Your task to perform on an android device: Open location settings Image 0: 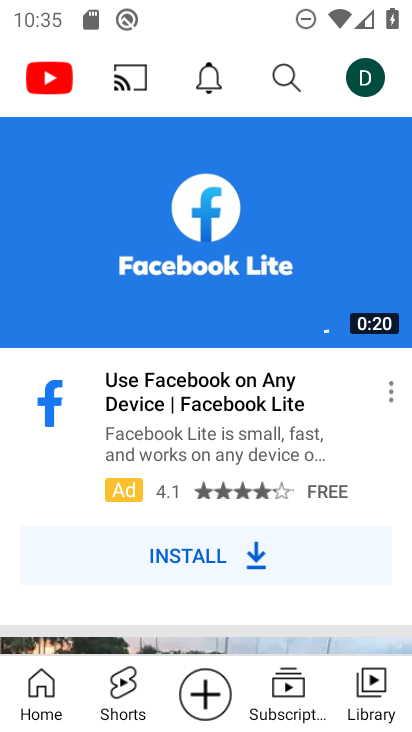
Step 0: press home button
Your task to perform on an android device: Open location settings Image 1: 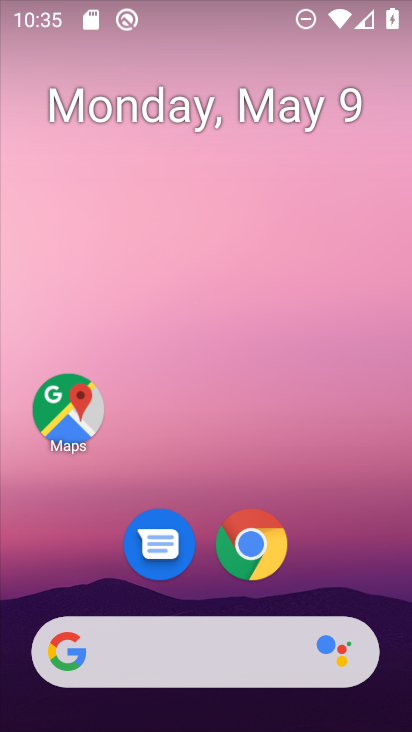
Step 1: drag from (332, 598) to (262, 114)
Your task to perform on an android device: Open location settings Image 2: 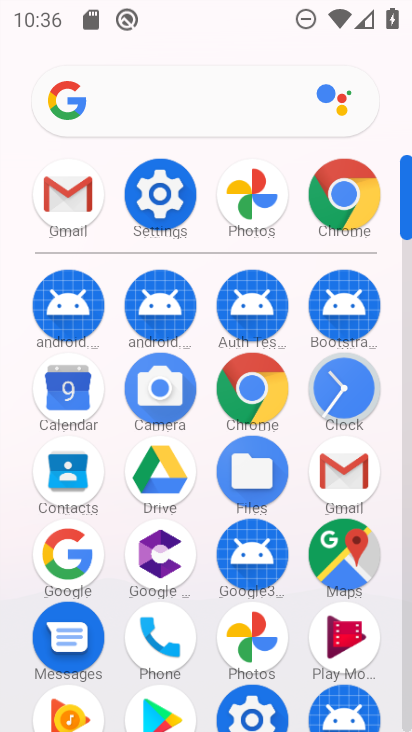
Step 2: click (159, 202)
Your task to perform on an android device: Open location settings Image 3: 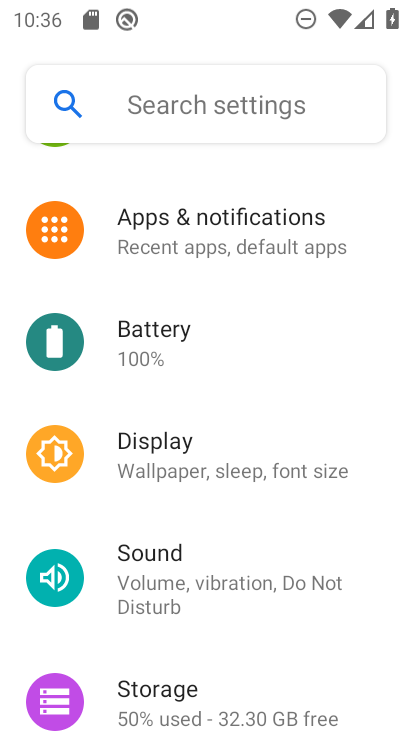
Step 3: drag from (227, 636) to (207, 265)
Your task to perform on an android device: Open location settings Image 4: 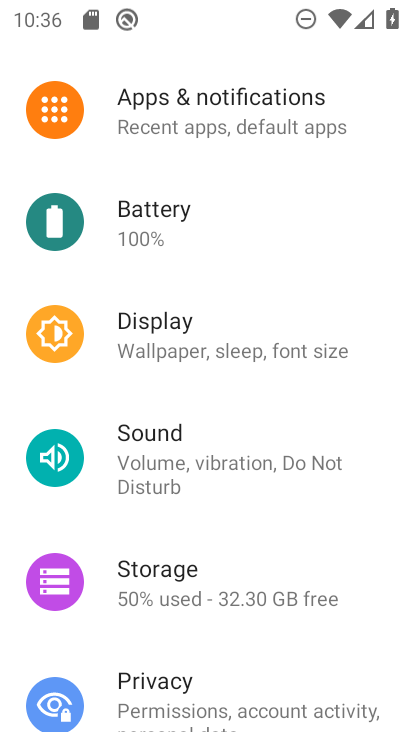
Step 4: drag from (224, 509) to (213, 132)
Your task to perform on an android device: Open location settings Image 5: 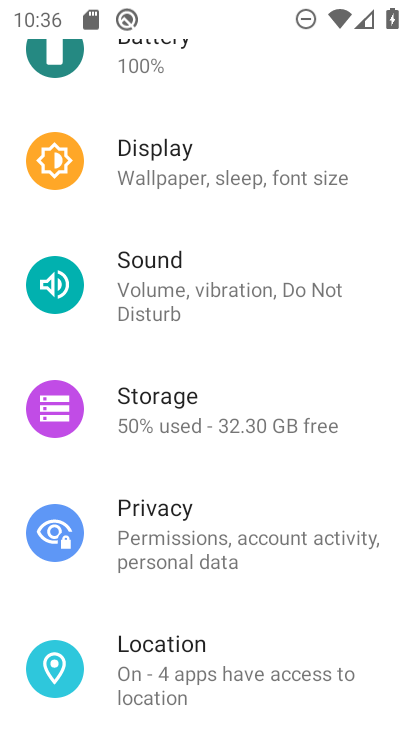
Step 5: click (159, 638)
Your task to perform on an android device: Open location settings Image 6: 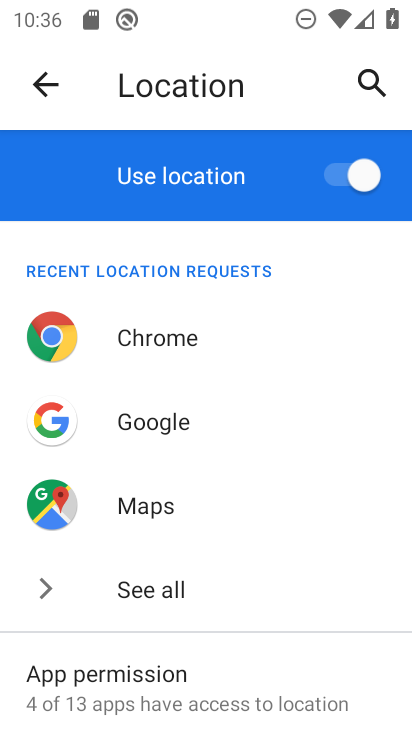
Step 6: task complete